Your task to perform on an android device: turn off airplane mode Image 0: 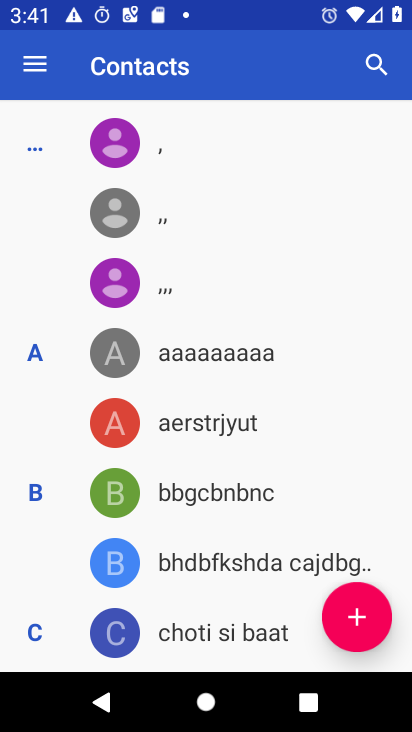
Step 0: press home button
Your task to perform on an android device: turn off airplane mode Image 1: 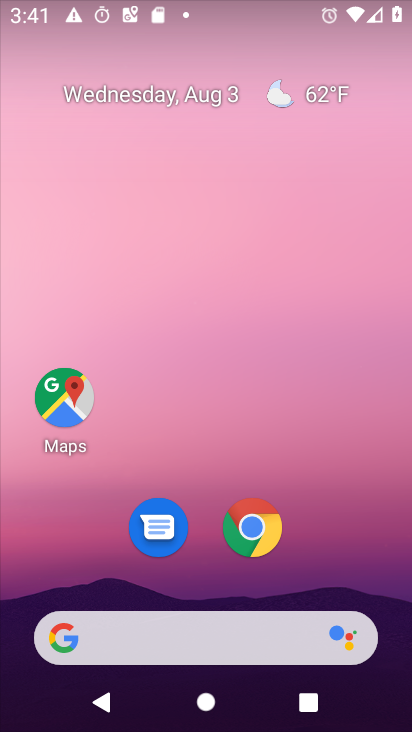
Step 1: drag from (363, 456) to (381, 112)
Your task to perform on an android device: turn off airplane mode Image 2: 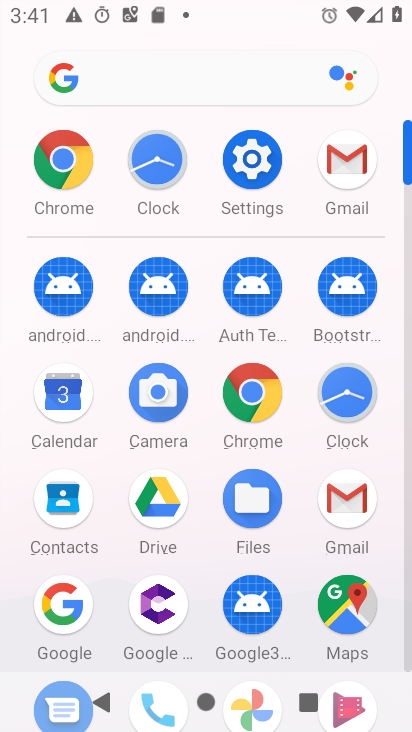
Step 2: click (242, 165)
Your task to perform on an android device: turn off airplane mode Image 3: 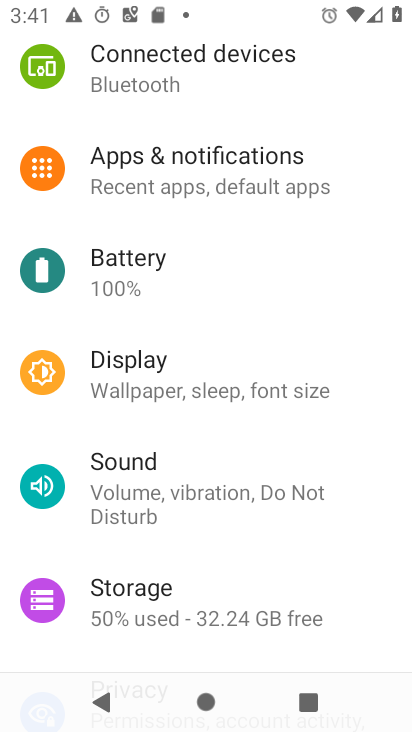
Step 3: click (151, 377)
Your task to perform on an android device: turn off airplane mode Image 4: 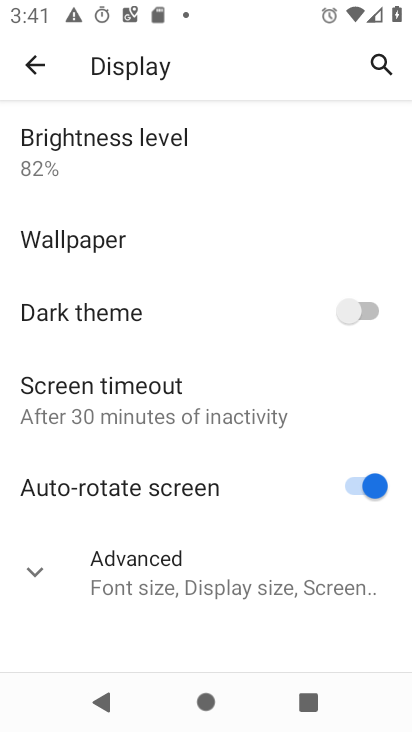
Step 4: click (110, 389)
Your task to perform on an android device: turn off airplane mode Image 5: 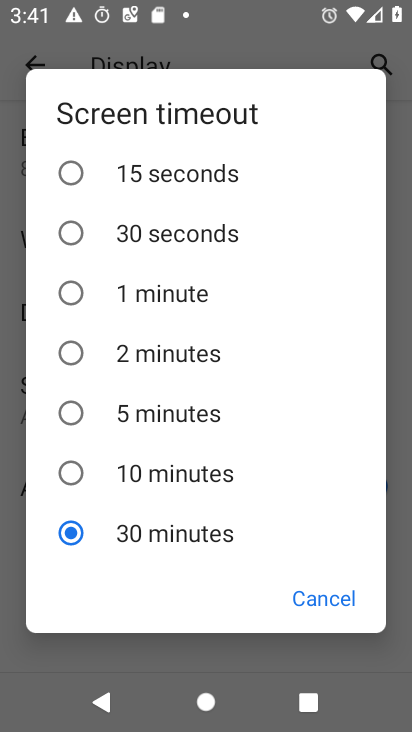
Step 5: task complete